Your task to perform on an android device: install app "PUBG MOBILE" Image 0: 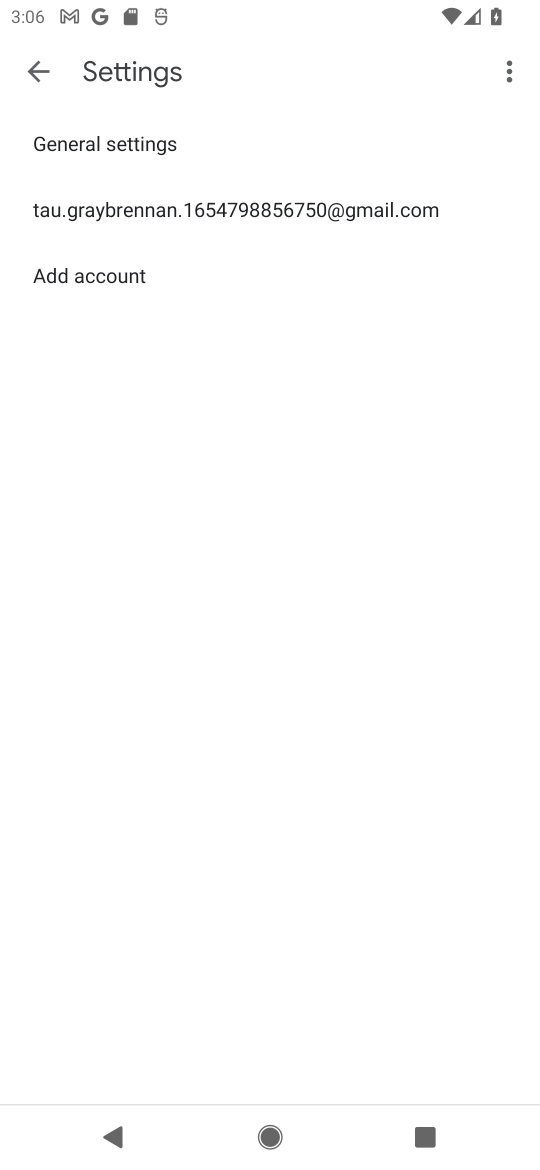
Step 0: drag from (357, 645) to (465, 161)
Your task to perform on an android device: install app "PUBG MOBILE" Image 1: 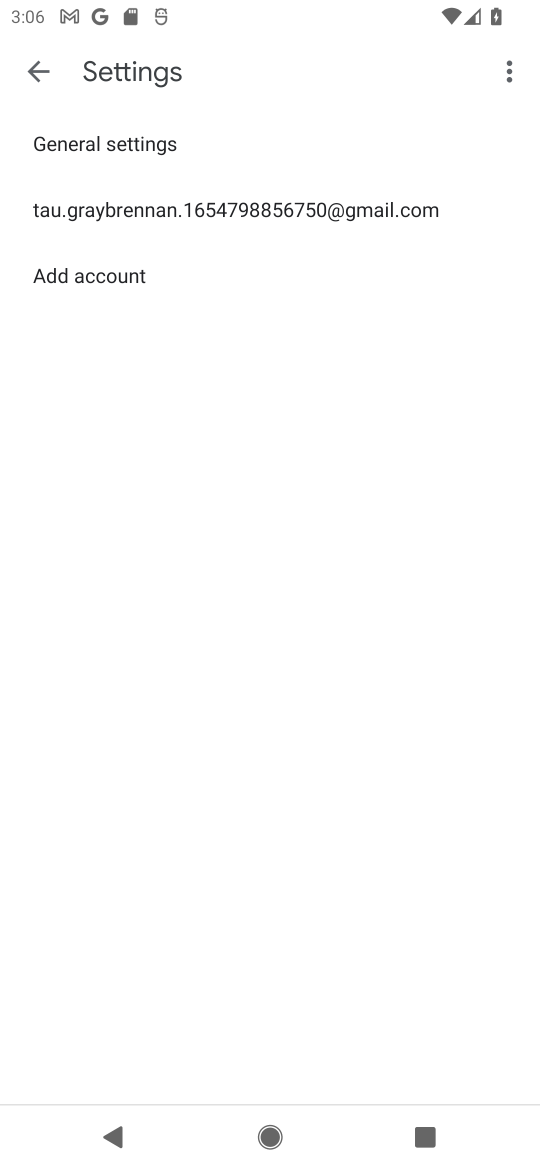
Step 1: press home button
Your task to perform on an android device: install app "PUBG MOBILE" Image 2: 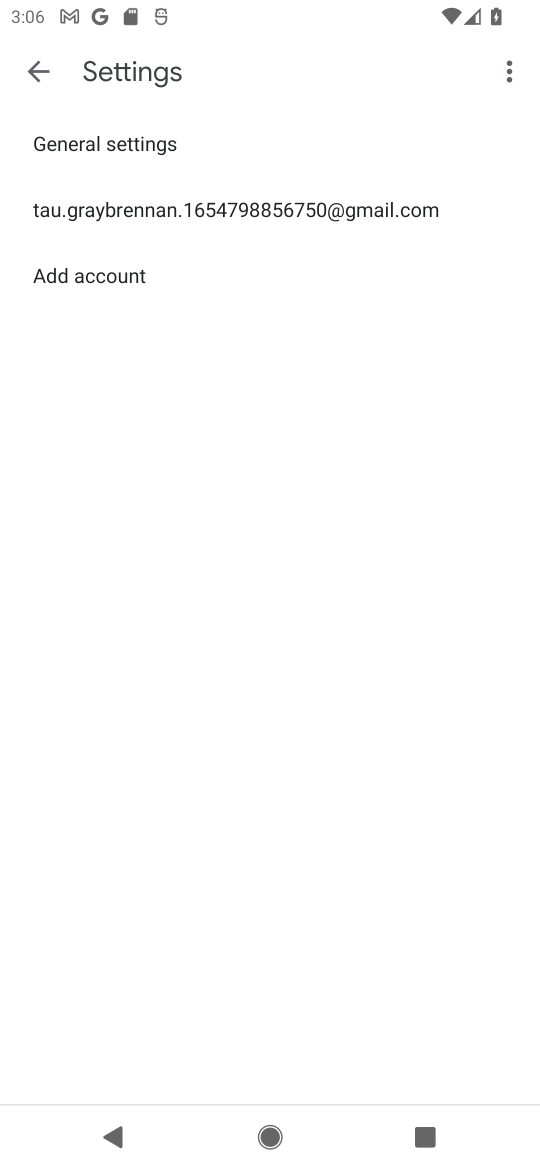
Step 2: press home button
Your task to perform on an android device: install app "PUBG MOBILE" Image 3: 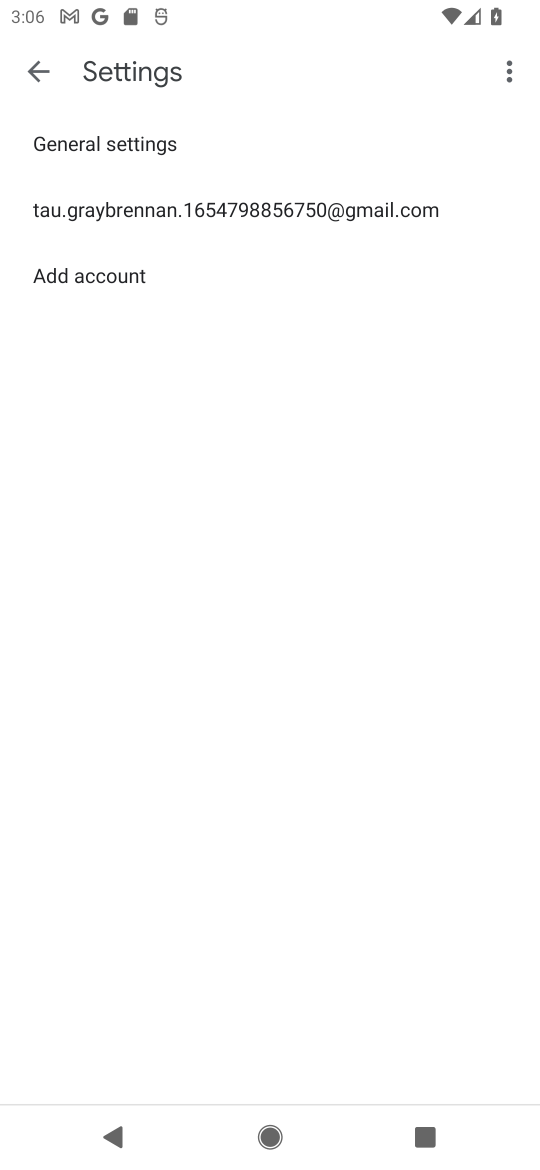
Step 3: press home button
Your task to perform on an android device: install app "PUBG MOBILE" Image 4: 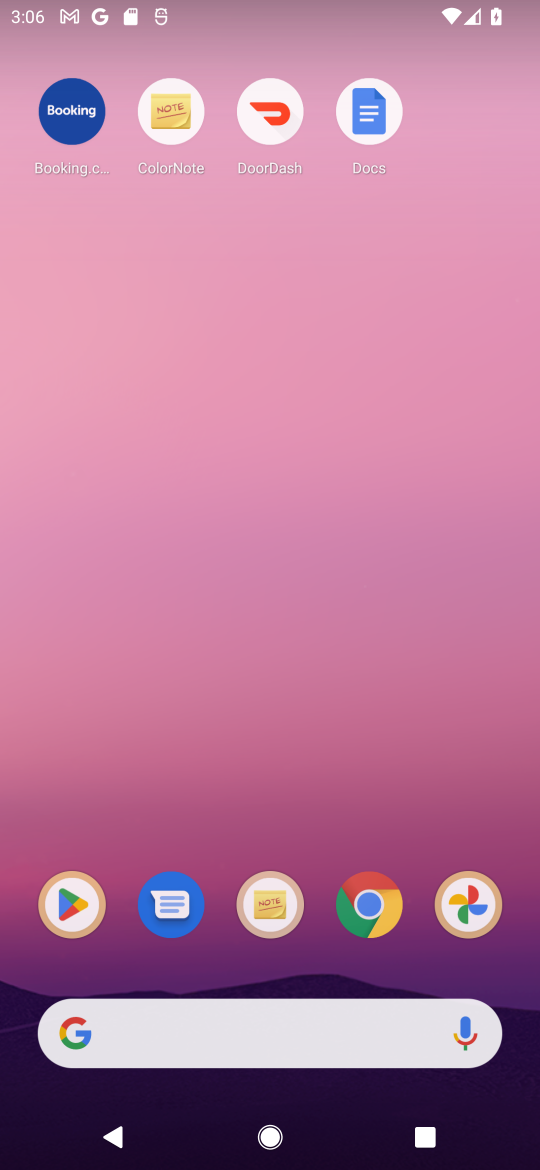
Step 4: drag from (283, 505) to (292, 276)
Your task to perform on an android device: install app "PUBG MOBILE" Image 5: 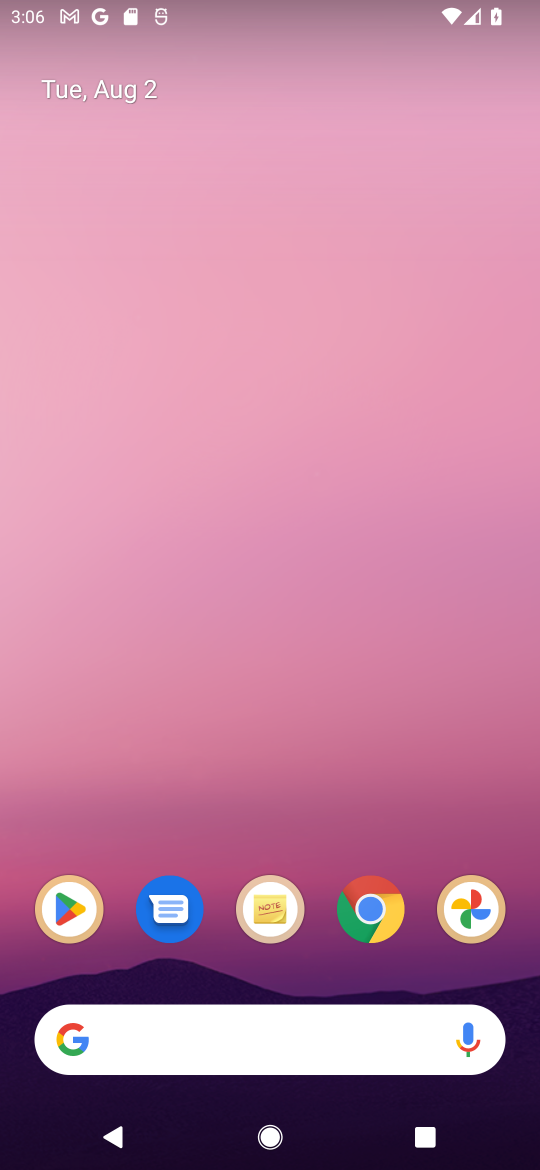
Step 5: drag from (196, 971) to (329, 194)
Your task to perform on an android device: install app "PUBG MOBILE" Image 6: 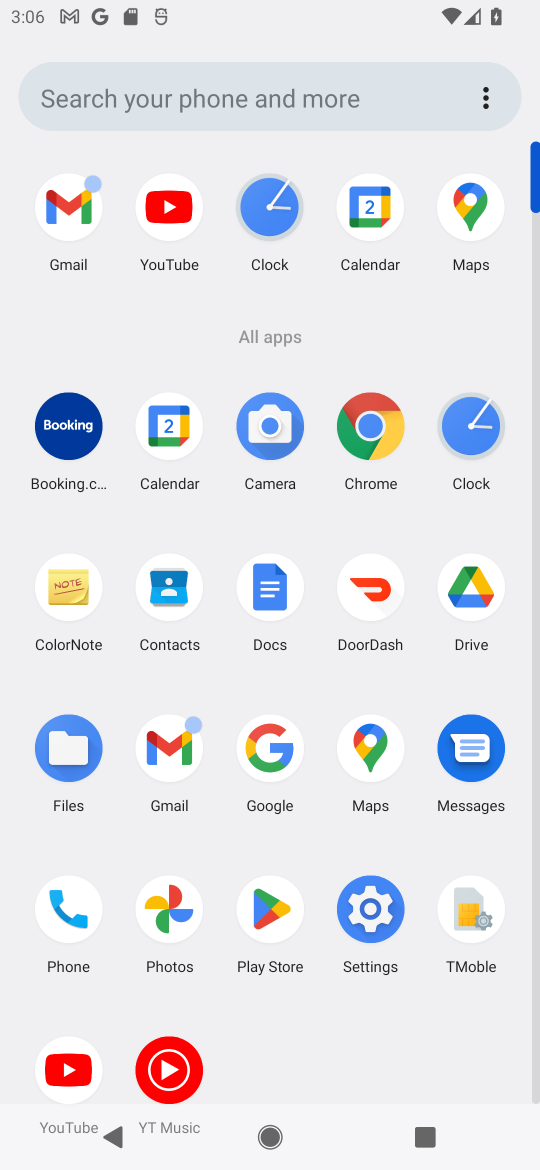
Step 6: click (173, 74)
Your task to perform on an android device: install app "PUBG MOBILE" Image 7: 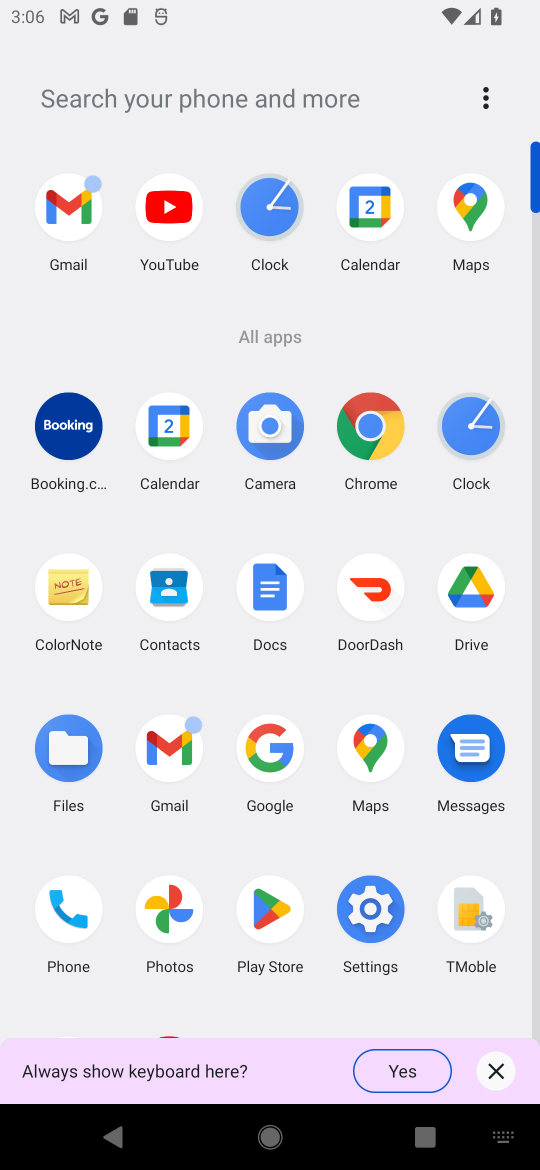
Step 7: click (274, 919)
Your task to perform on an android device: install app "PUBG MOBILE" Image 8: 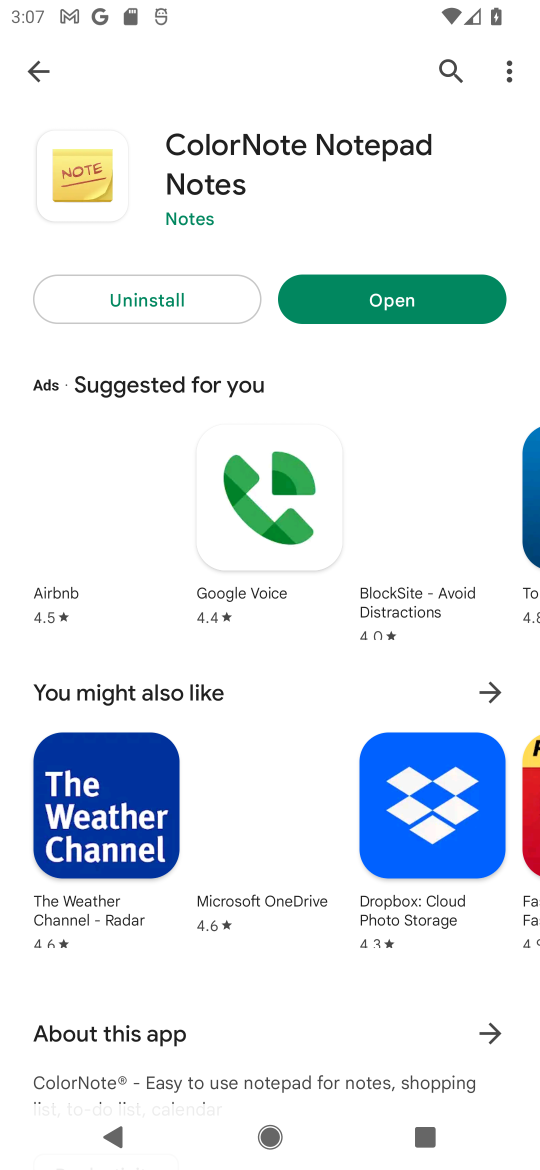
Step 8: click (453, 75)
Your task to perform on an android device: install app "PUBG MOBILE" Image 9: 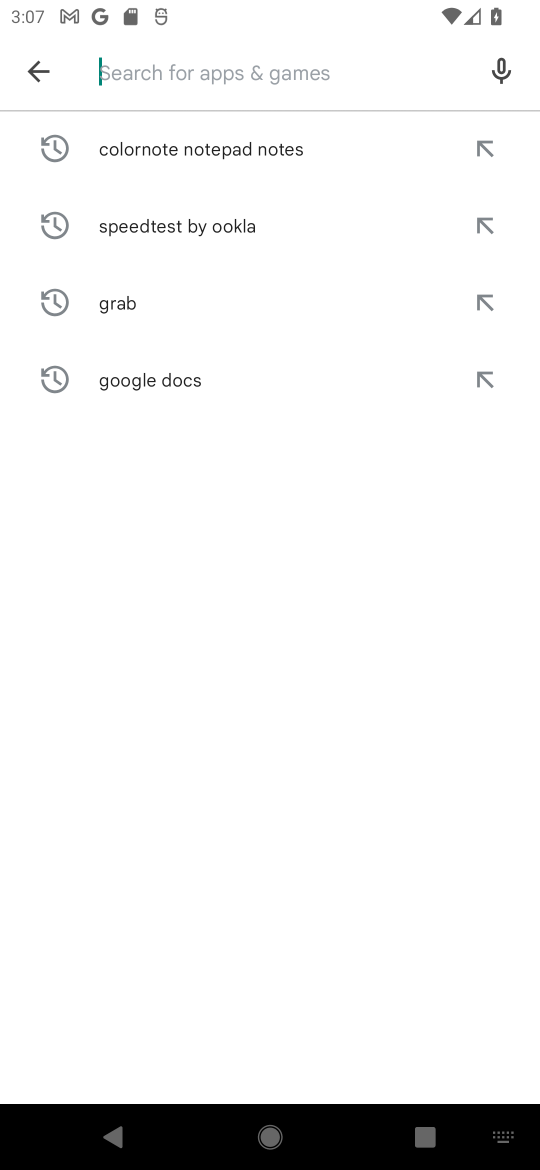
Step 9: click (230, 61)
Your task to perform on an android device: install app "PUBG MOBILE" Image 10: 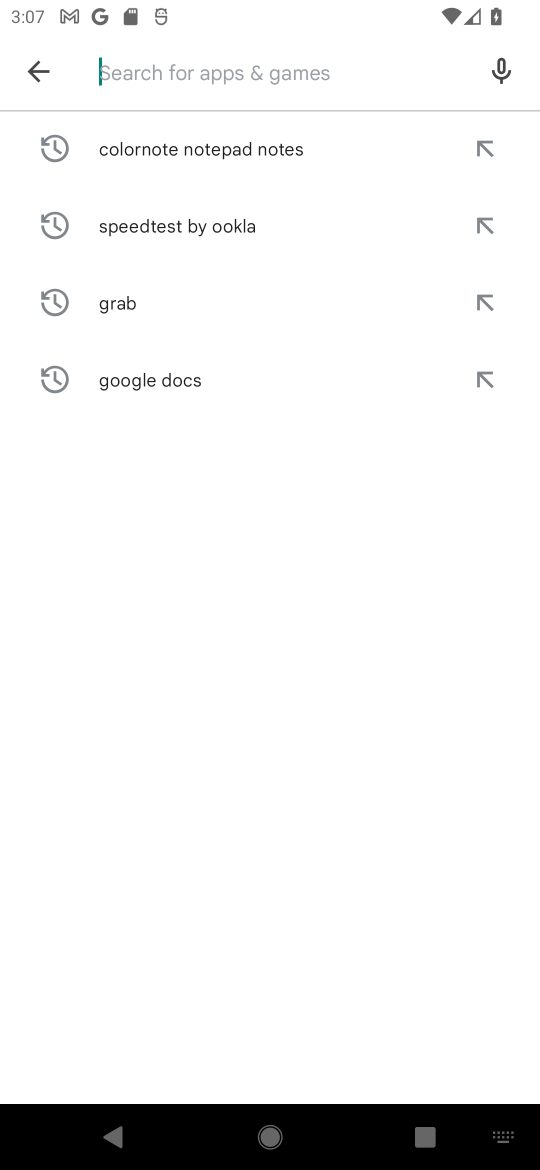
Step 10: type "PUBG MOBILE"
Your task to perform on an android device: install app "PUBG MOBILE" Image 11: 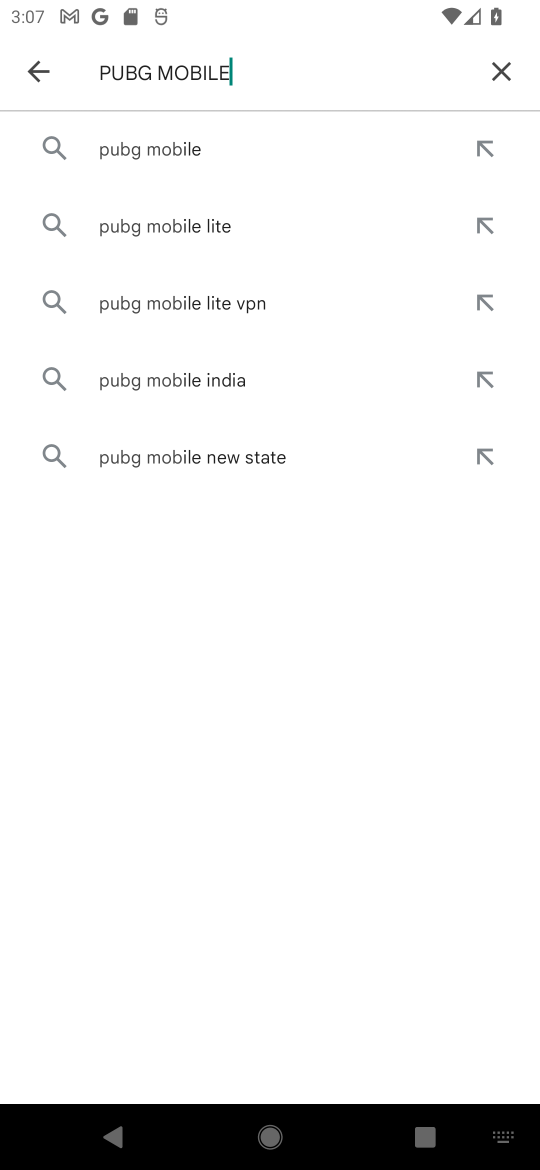
Step 11: type ""
Your task to perform on an android device: install app "PUBG MOBILE" Image 12: 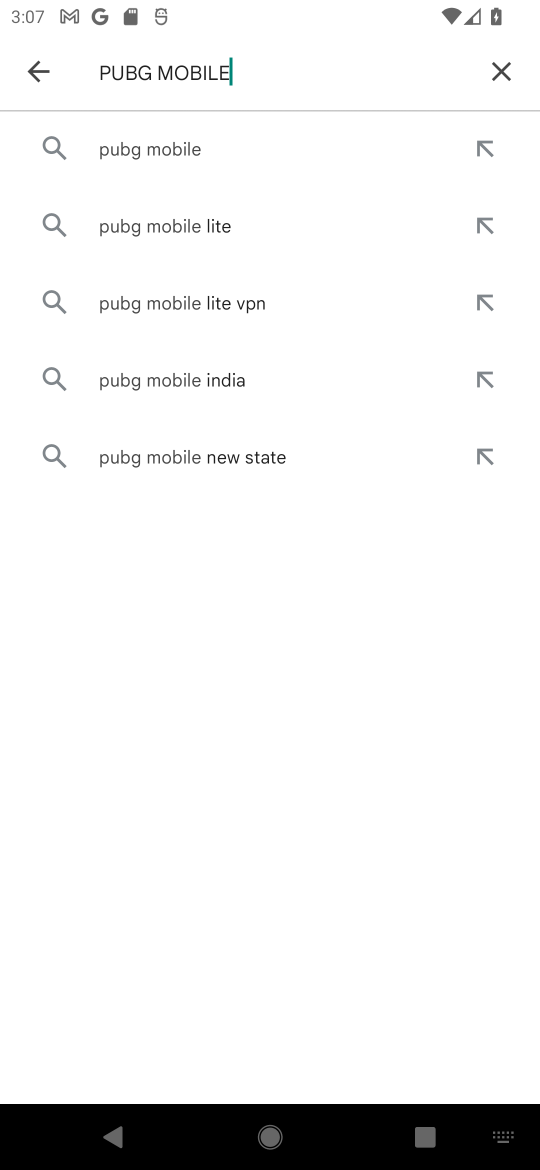
Step 12: click (199, 143)
Your task to perform on an android device: install app "PUBG MOBILE" Image 13: 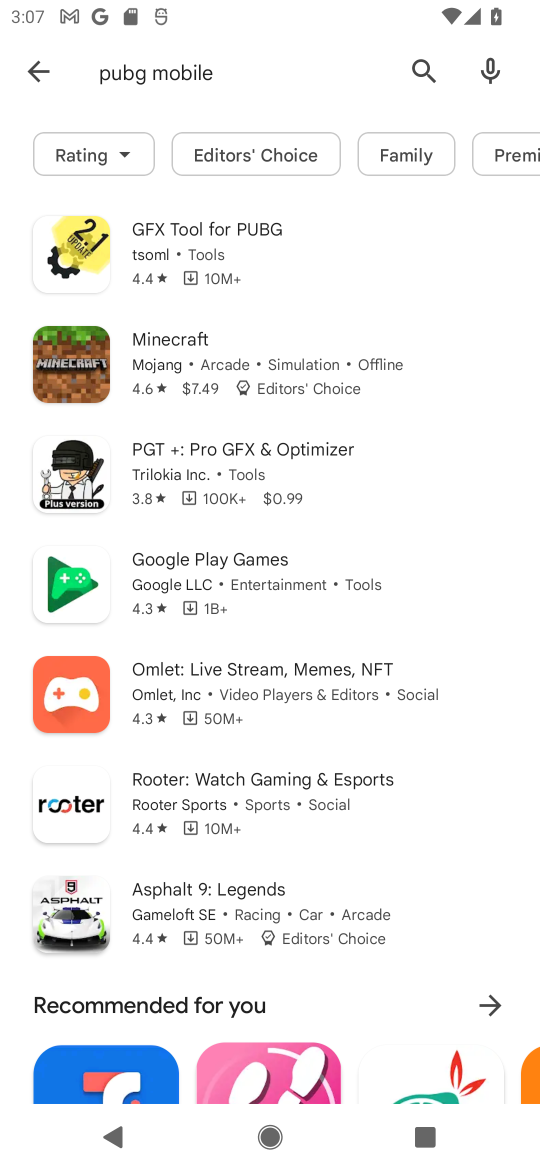
Step 13: task complete